Your task to perform on an android device: star an email in the gmail app Image 0: 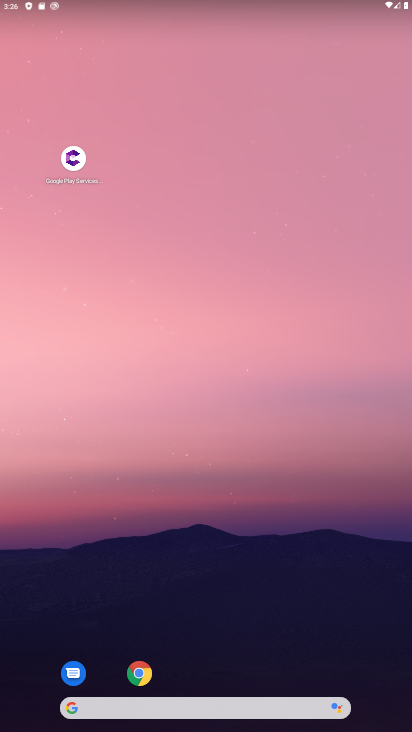
Step 0: drag from (242, 604) to (229, 291)
Your task to perform on an android device: star an email in the gmail app Image 1: 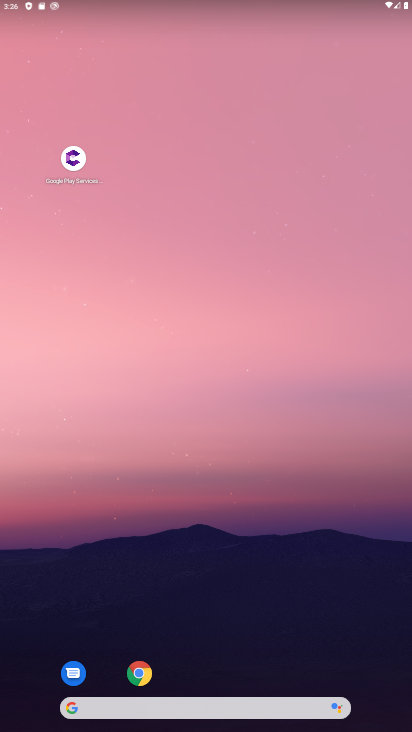
Step 1: drag from (194, 630) to (210, 76)
Your task to perform on an android device: star an email in the gmail app Image 2: 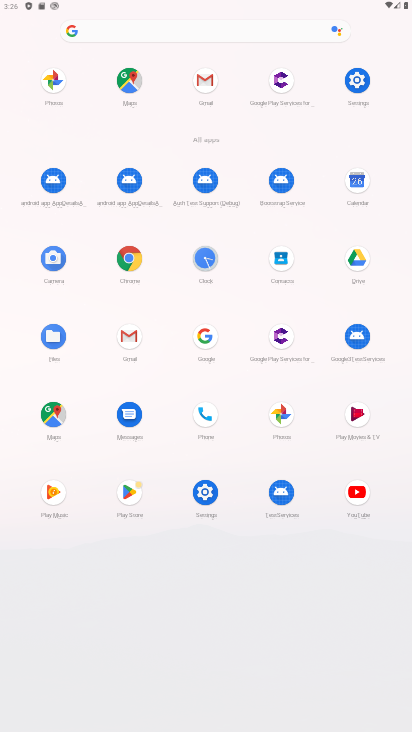
Step 2: click (131, 339)
Your task to perform on an android device: star an email in the gmail app Image 3: 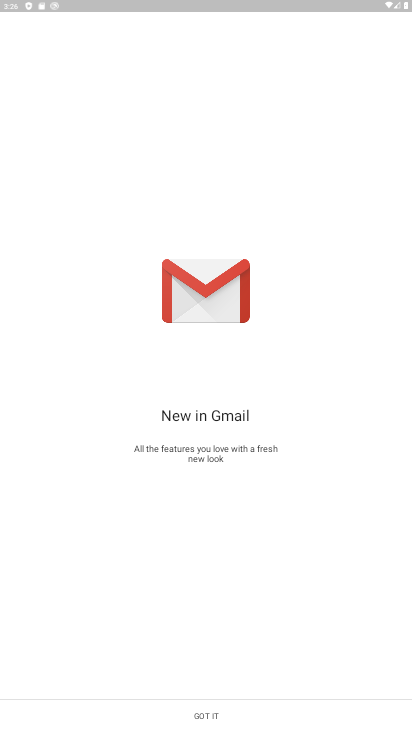
Step 3: click (233, 717)
Your task to perform on an android device: star an email in the gmail app Image 4: 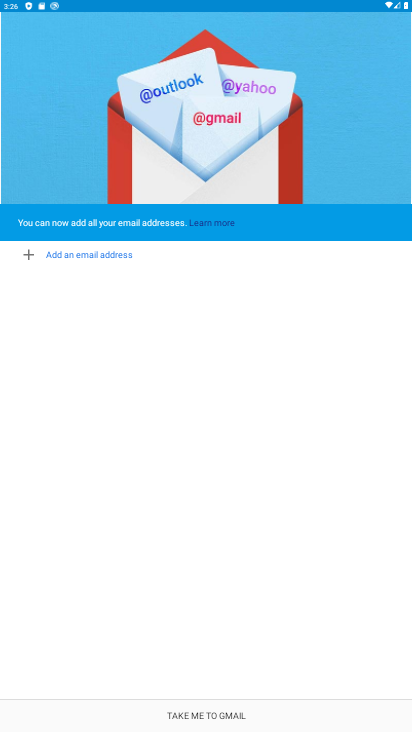
Step 4: click (233, 717)
Your task to perform on an android device: star an email in the gmail app Image 5: 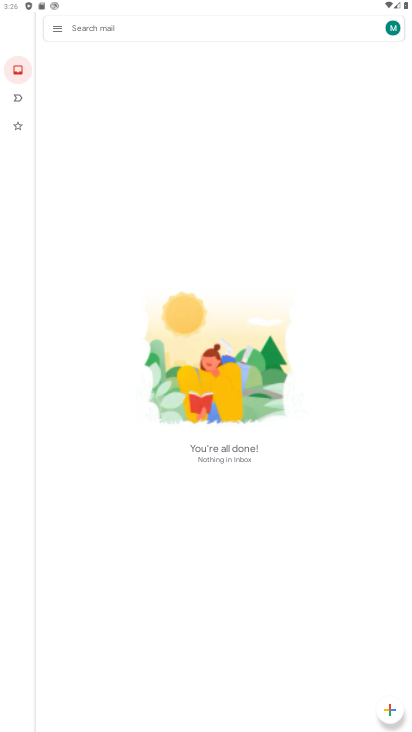
Step 5: click (58, 26)
Your task to perform on an android device: star an email in the gmail app Image 6: 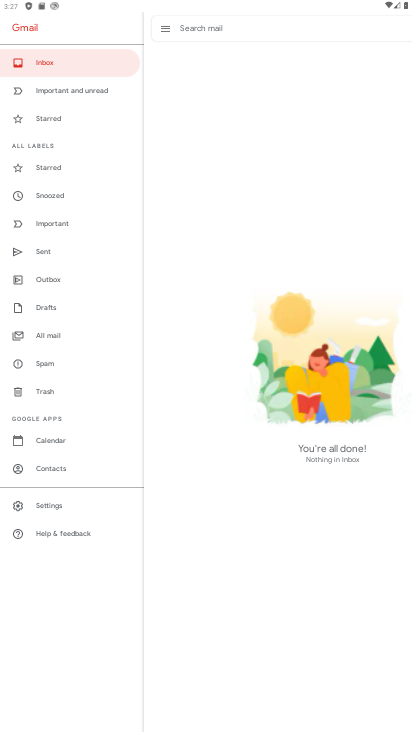
Step 6: click (43, 156)
Your task to perform on an android device: star an email in the gmail app Image 7: 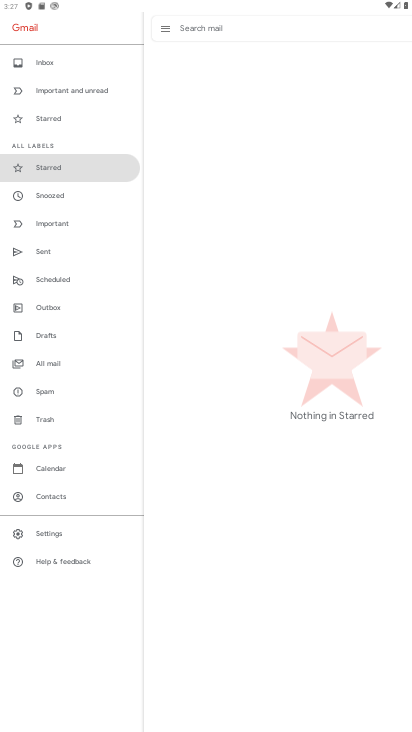
Step 7: task complete